Your task to perform on an android device: Search for vegetarian restaurants on Maps Image 0: 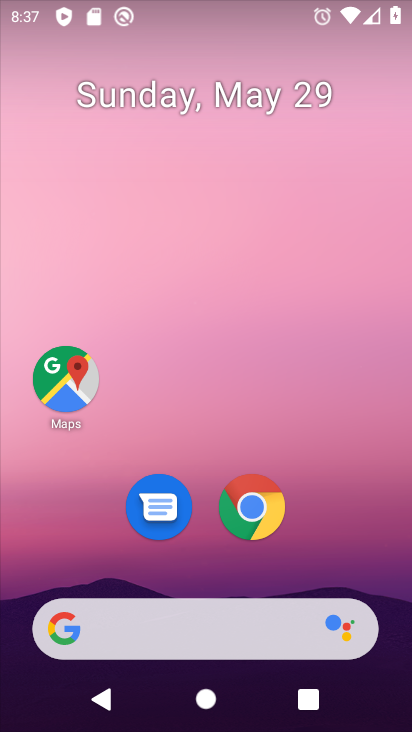
Step 0: click (74, 378)
Your task to perform on an android device: Search for vegetarian restaurants on Maps Image 1: 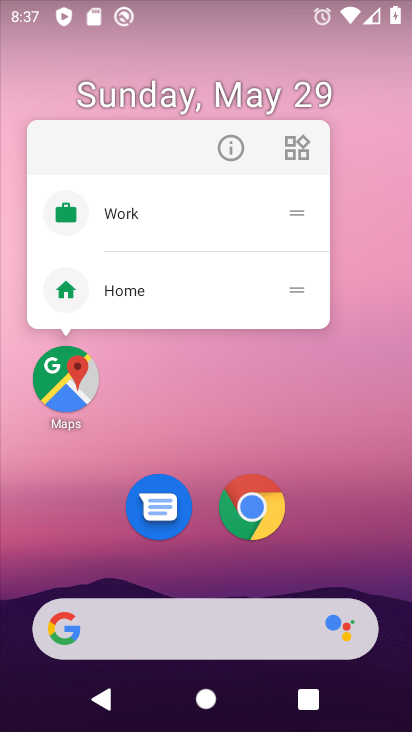
Step 1: click (60, 395)
Your task to perform on an android device: Search for vegetarian restaurants on Maps Image 2: 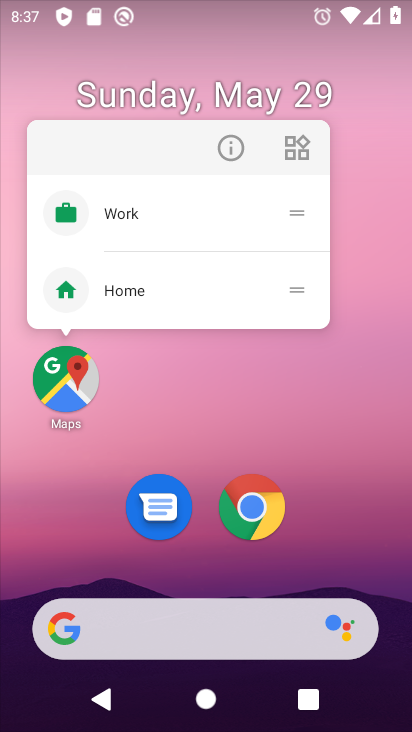
Step 2: click (63, 398)
Your task to perform on an android device: Search for vegetarian restaurants on Maps Image 3: 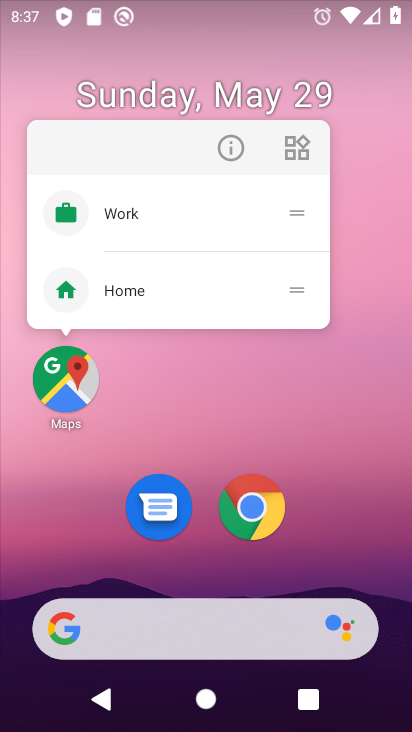
Step 3: click (77, 392)
Your task to perform on an android device: Search for vegetarian restaurants on Maps Image 4: 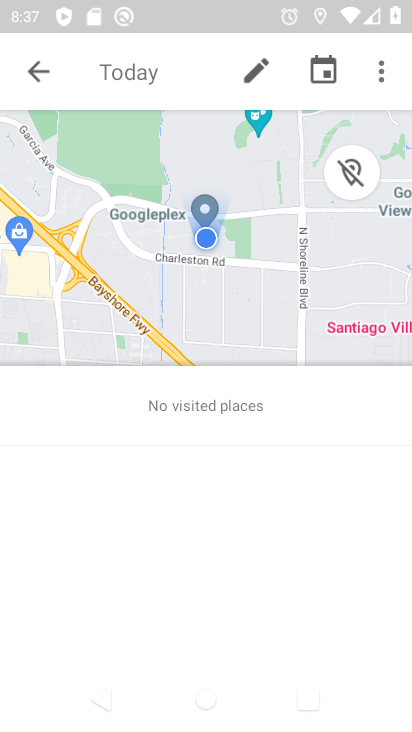
Step 4: press back button
Your task to perform on an android device: Search for vegetarian restaurants on Maps Image 5: 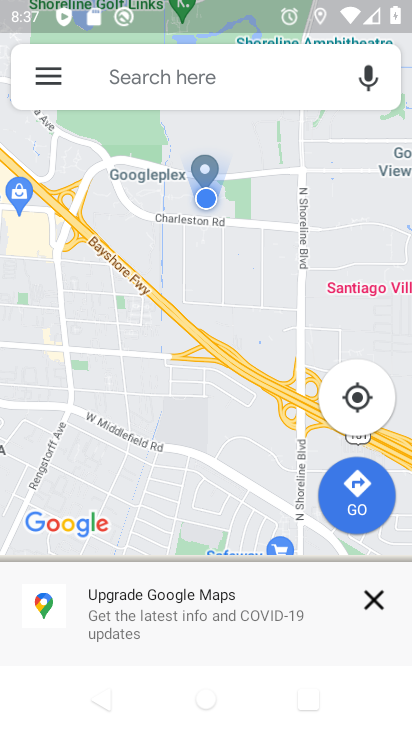
Step 5: click (371, 599)
Your task to perform on an android device: Search for vegetarian restaurants on Maps Image 6: 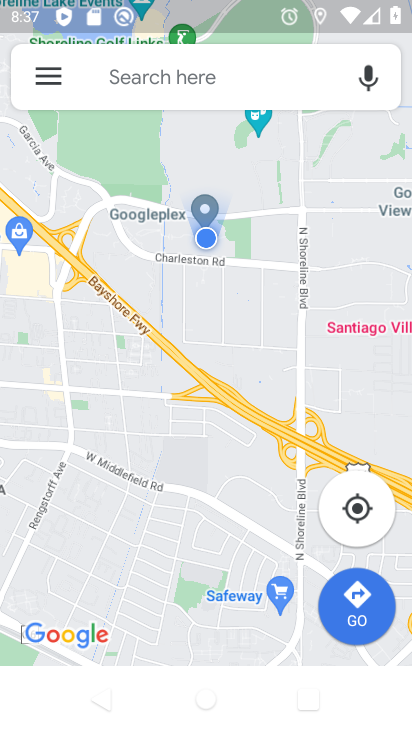
Step 6: click (179, 87)
Your task to perform on an android device: Search for vegetarian restaurants on Maps Image 7: 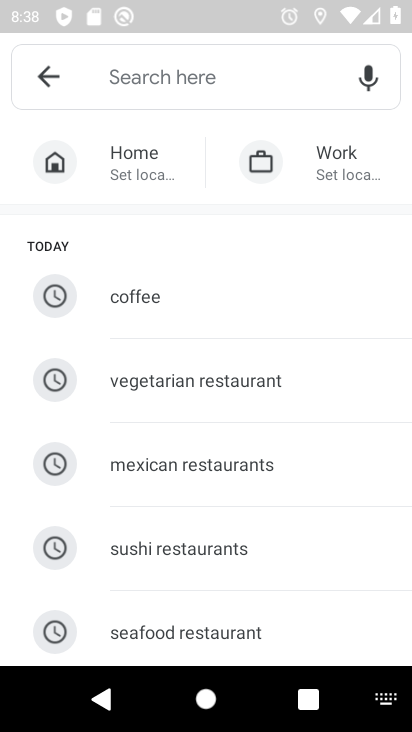
Step 7: type "vegetarian restaurants"
Your task to perform on an android device: Search for vegetarian restaurants on Maps Image 8: 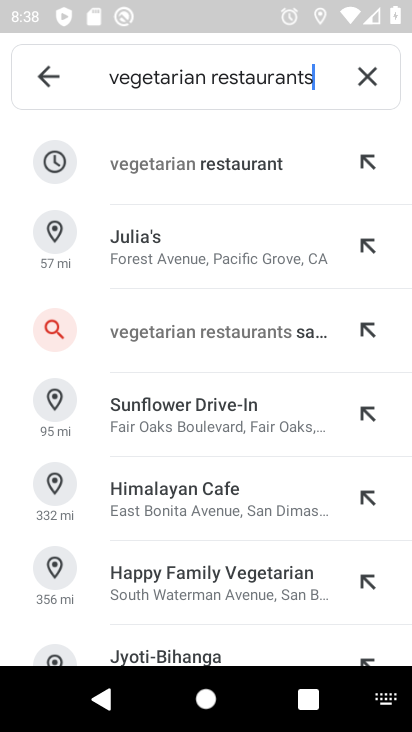
Step 8: click (244, 188)
Your task to perform on an android device: Search for vegetarian restaurants on Maps Image 9: 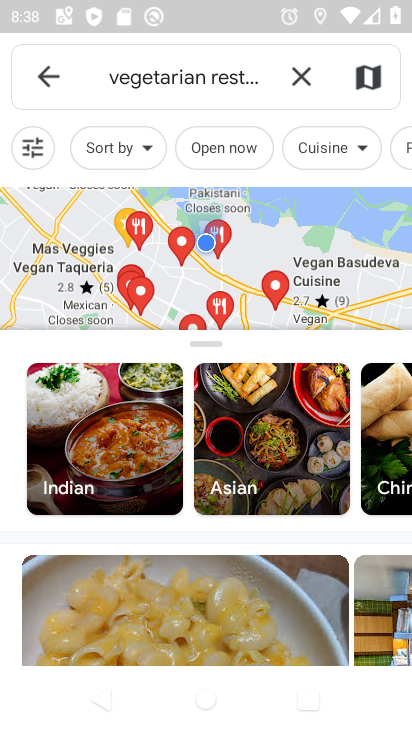
Step 9: task complete